Your task to perform on an android device: turn on the 24-hour format for clock Image 0: 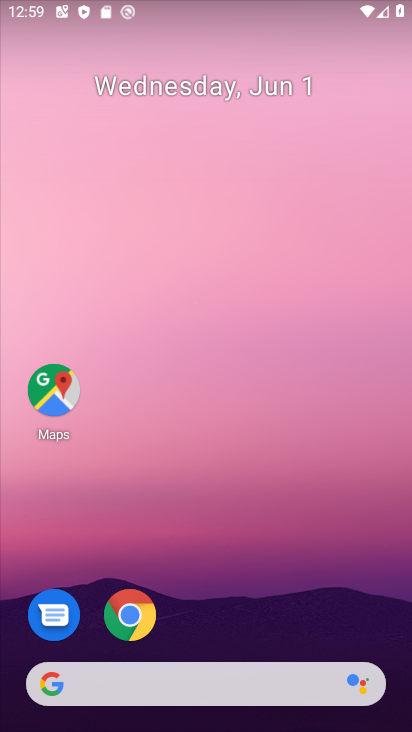
Step 0: press home button
Your task to perform on an android device: turn on the 24-hour format for clock Image 1: 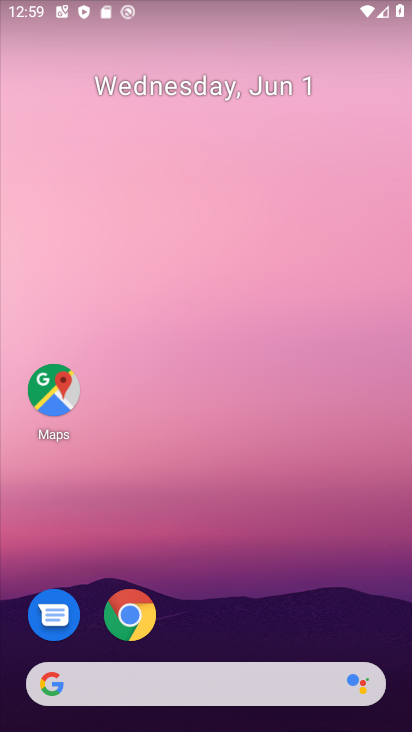
Step 1: task complete